Your task to perform on an android device: clear history in the chrome app Image 0: 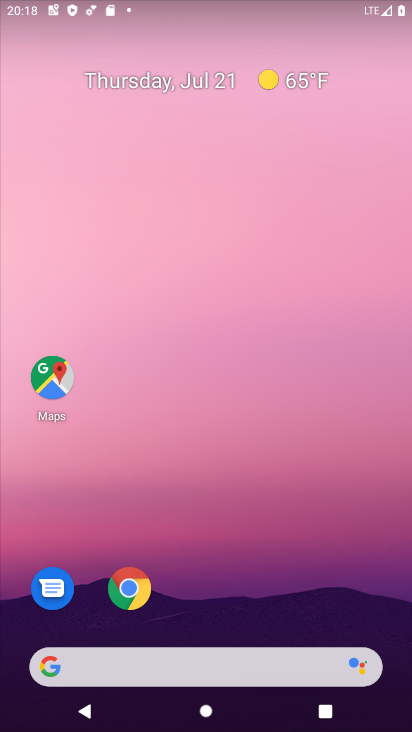
Step 0: drag from (220, 628) to (155, 63)
Your task to perform on an android device: clear history in the chrome app Image 1: 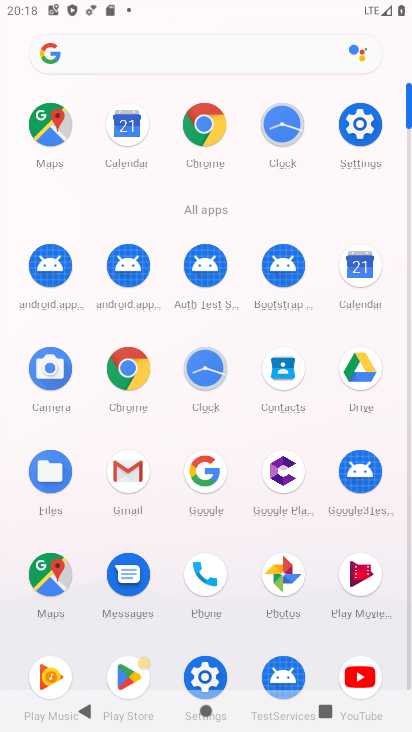
Step 1: click (211, 130)
Your task to perform on an android device: clear history in the chrome app Image 2: 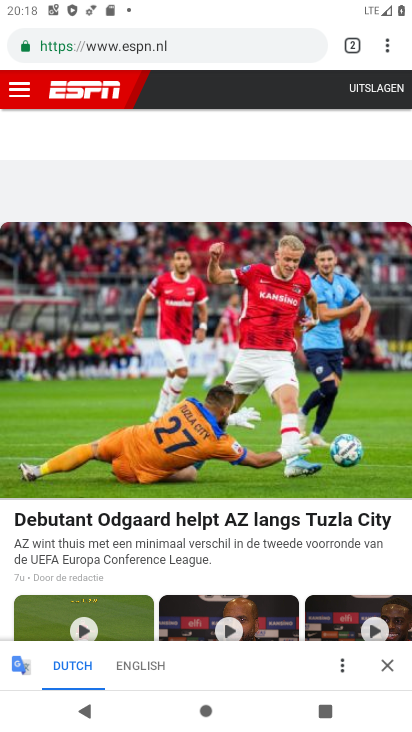
Step 2: drag from (381, 45) to (259, 248)
Your task to perform on an android device: clear history in the chrome app Image 3: 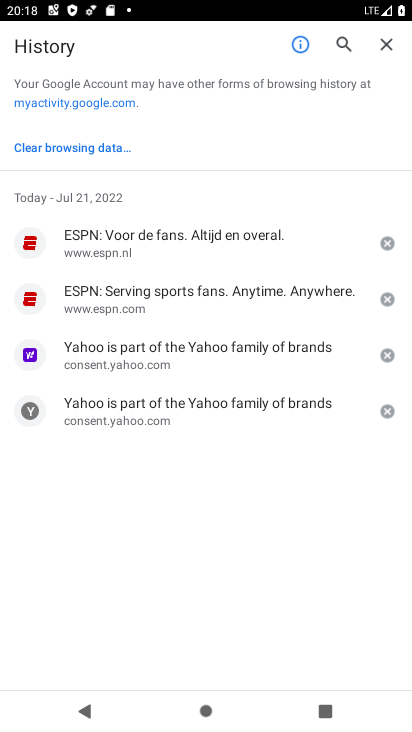
Step 3: click (61, 149)
Your task to perform on an android device: clear history in the chrome app Image 4: 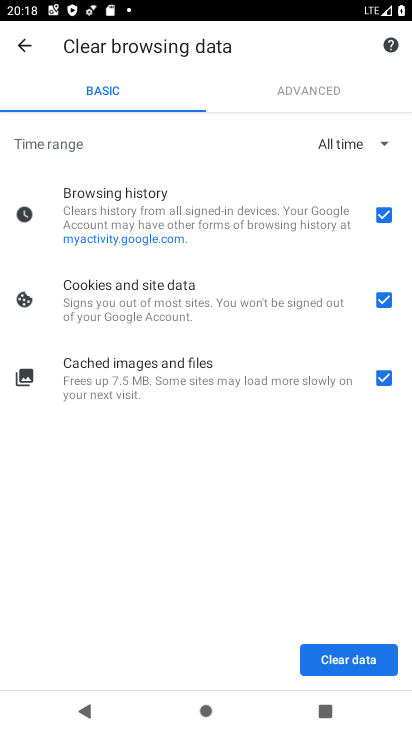
Step 4: click (340, 660)
Your task to perform on an android device: clear history in the chrome app Image 5: 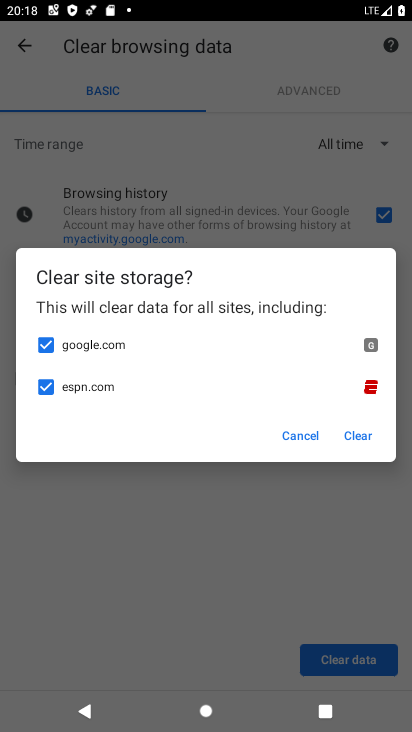
Step 5: click (353, 433)
Your task to perform on an android device: clear history in the chrome app Image 6: 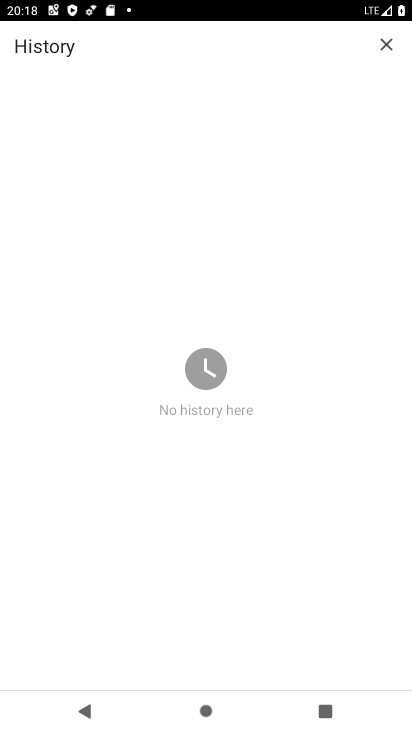
Step 6: task complete